Your task to perform on an android device: See recent photos Image 0: 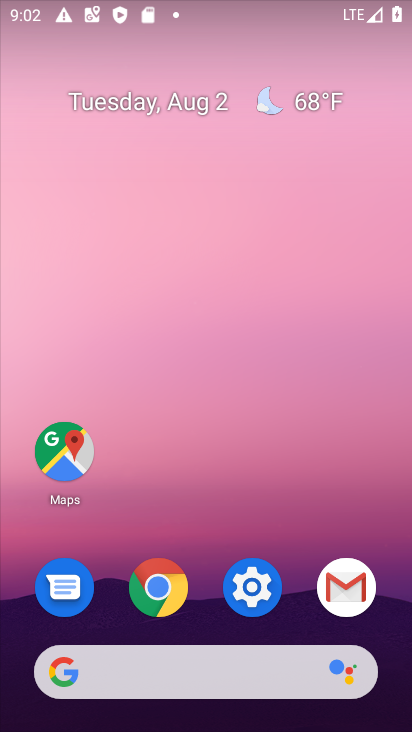
Step 0: drag from (248, 532) to (135, 219)
Your task to perform on an android device: See recent photos Image 1: 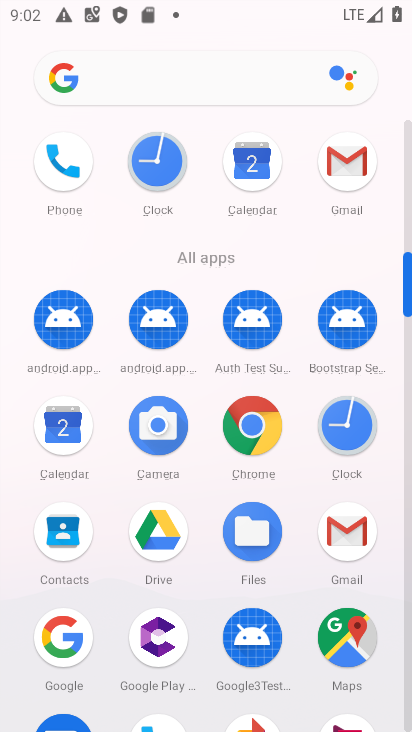
Step 1: click (252, 722)
Your task to perform on an android device: See recent photos Image 2: 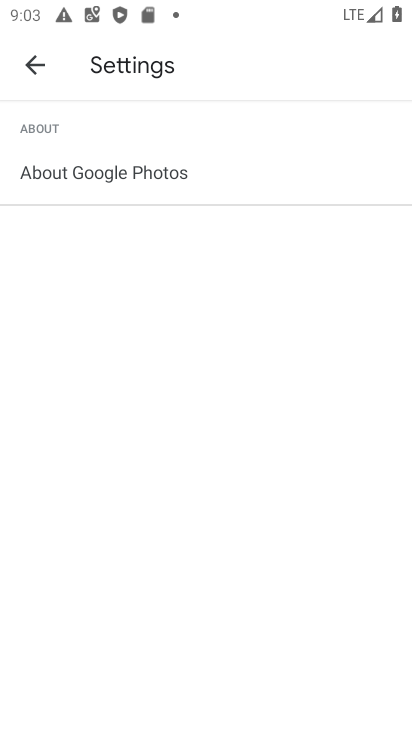
Step 2: click (22, 57)
Your task to perform on an android device: See recent photos Image 3: 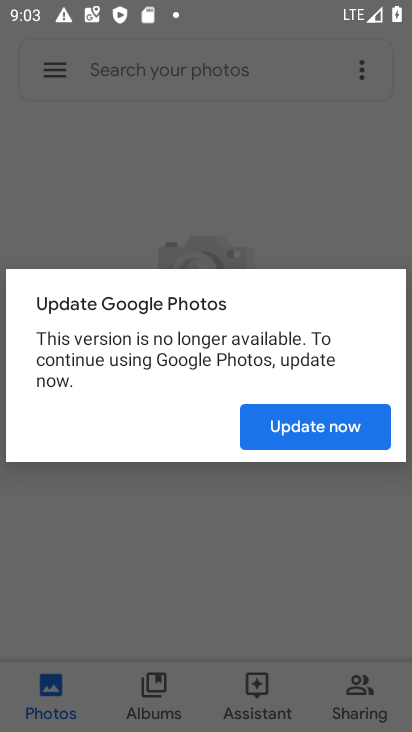
Step 3: click (303, 437)
Your task to perform on an android device: See recent photos Image 4: 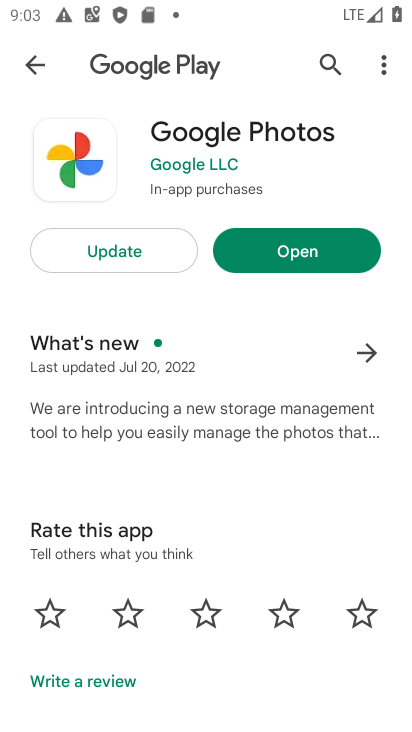
Step 4: click (312, 248)
Your task to perform on an android device: See recent photos Image 5: 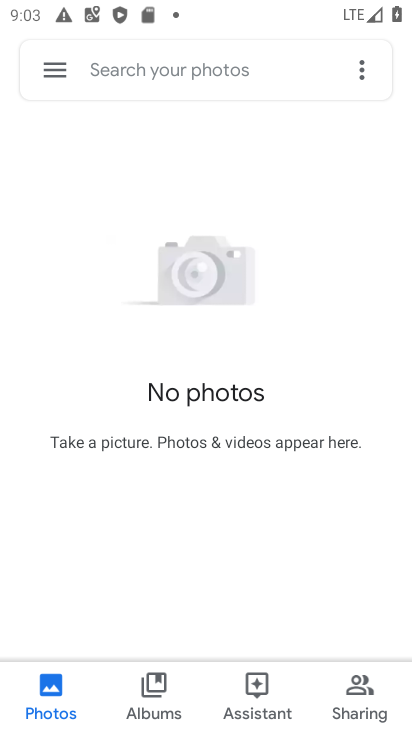
Step 5: task complete